Your task to perform on an android device: toggle pop-ups in chrome Image 0: 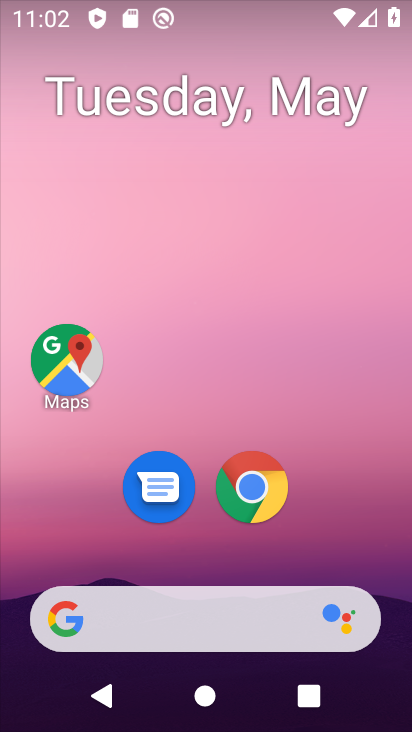
Step 0: click (243, 482)
Your task to perform on an android device: toggle pop-ups in chrome Image 1: 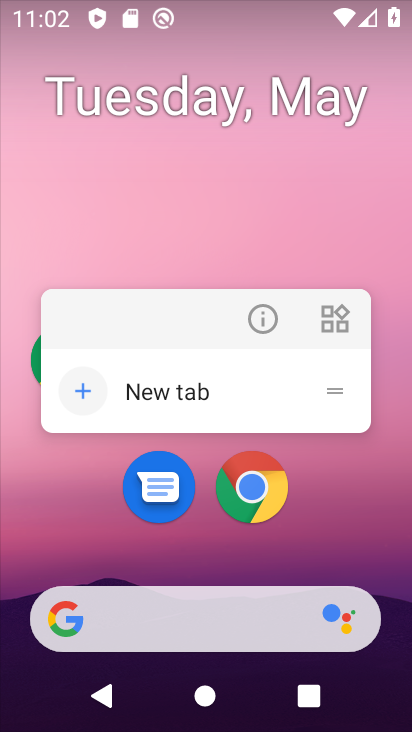
Step 1: click (252, 486)
Your task to perform on an android device: toggle pop-ups in chrome Image 2: 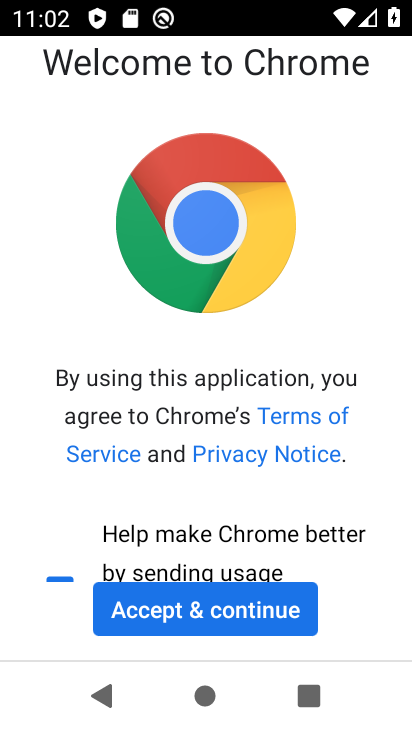
Step 2: click (179, 614)
Your task to perform on an android device: toggle pop-ups in chrome Image 3: 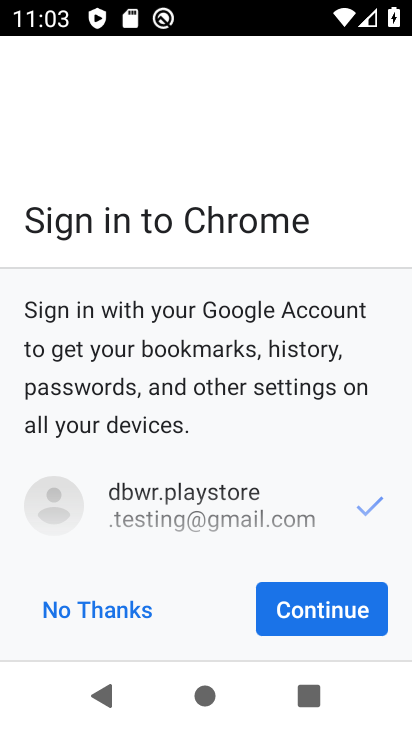
Step 3: click (312, 612)
Your task to perform on an android device: toggle pop-ups in chrome Image 4: 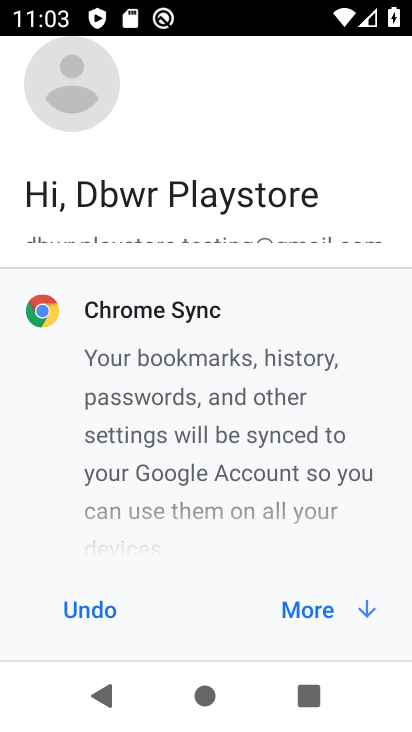
Step 4: click (320, 622)
Your task to perform on an android device: toggle pop-ups in chrome Image 5: 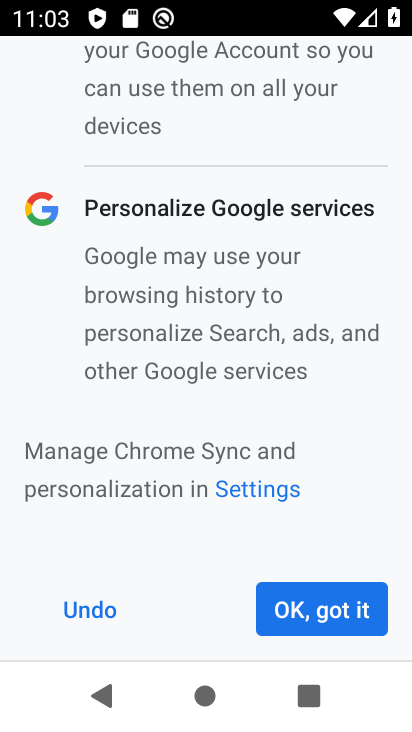
Step 5: click (312, 597)
Your task to perform on an android device: toggle pop-ups in chrome Image 6: 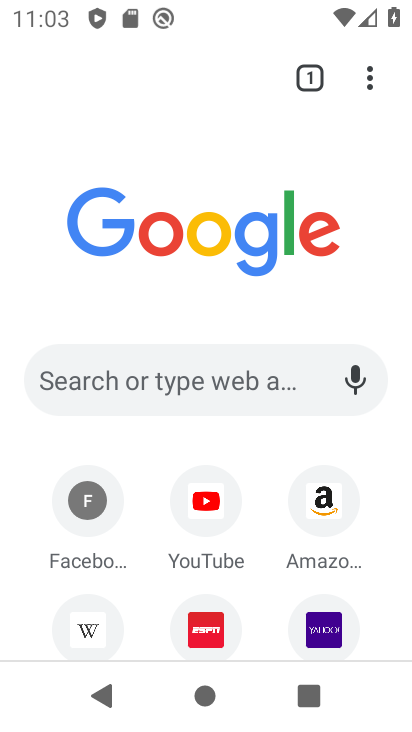
Step 6: click (356, 70)
Your task to perform on an android device: toggle pop-ups in chrome Image 7: 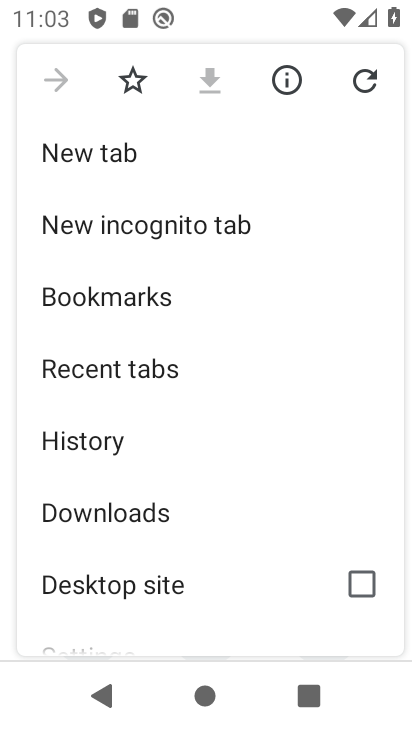
Step 7: drag from (249, 509) to (306, 193)
Your task to perform on an android device: toggle pop-ups in chrome Image 8: 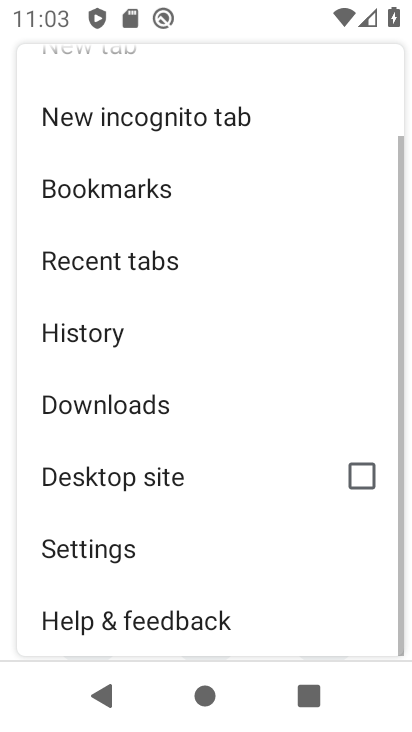
Step 8: click (96, 546)
Your task to perform on an android device: toggle pop-ups in chrome Image 9: 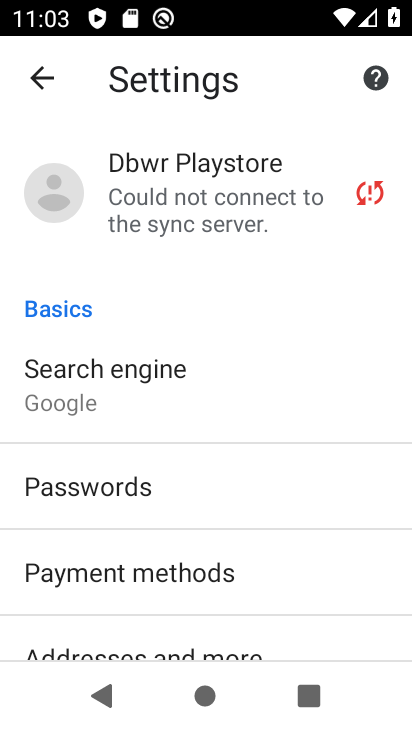
Step 9: drag from (98, 570) to (216, 223)
Your task to perform on an android device: toggle pop-ups in chrome Image 10: 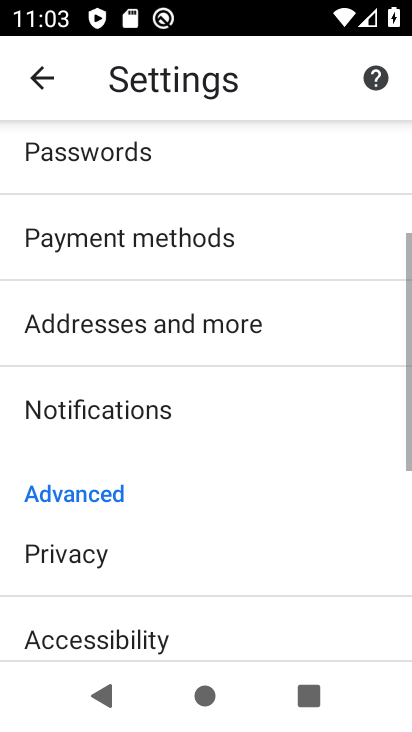
Step 10: drag from (154, 607) to (279, 235)
Your task to perform on an android device: toggle pop-ups in chrome Image 11: 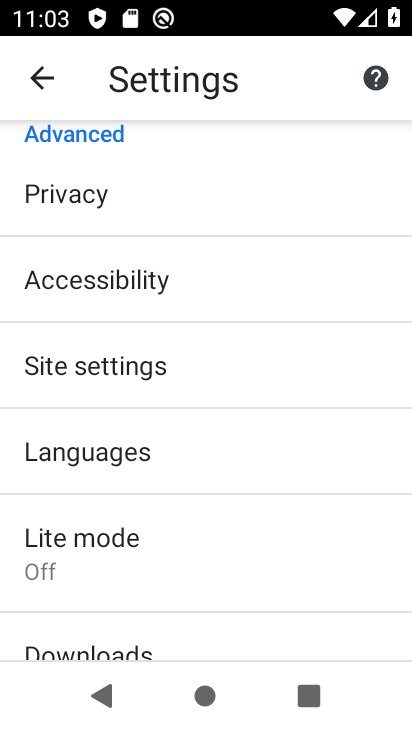
Step 11: click (149, 361)
Your task to perform on an android device: toggle pop-ups in chrome Image 12: 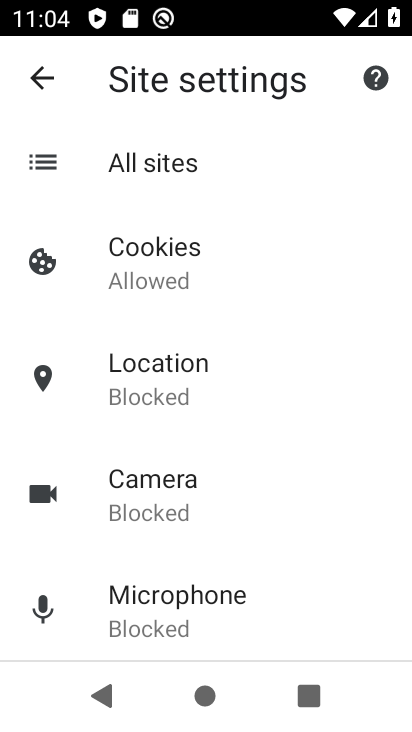
Step 12: drag from (207, 568) to (253, 203)
Your task to perform on an android device: toggle pop-ups in chrome Image 13: 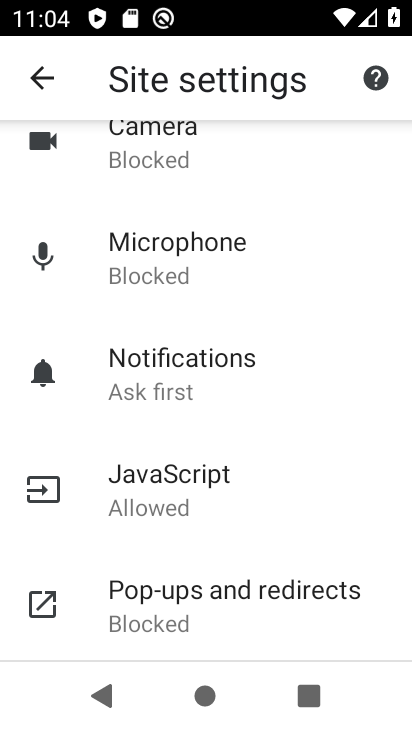
Step 13: click (208, 605)
Your task to perform on an android device: toggle pop-ups in chrome Image 14: 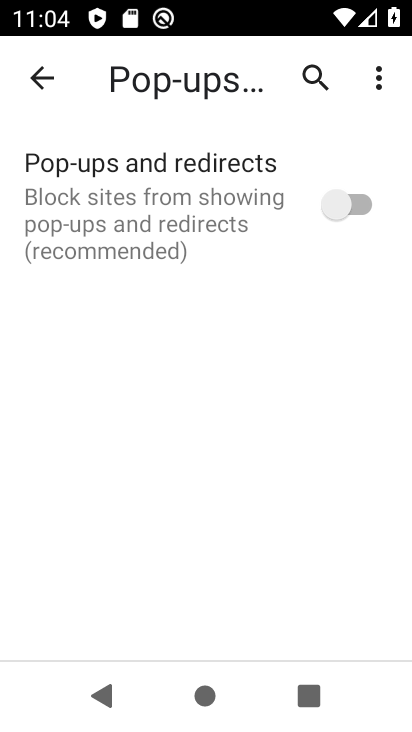
Step 14: click (327, 201)
Your task to perform on an android device: toggle pop-ups in chrome Image 15: 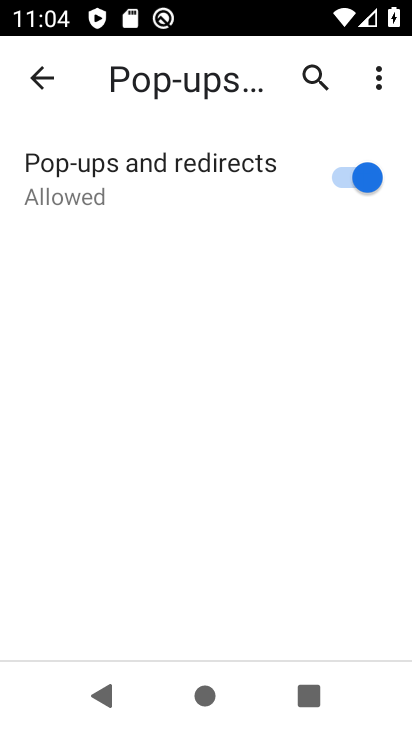
Step 15: task complete